Your task to perform on an android device: What's the weather today? Image 0: 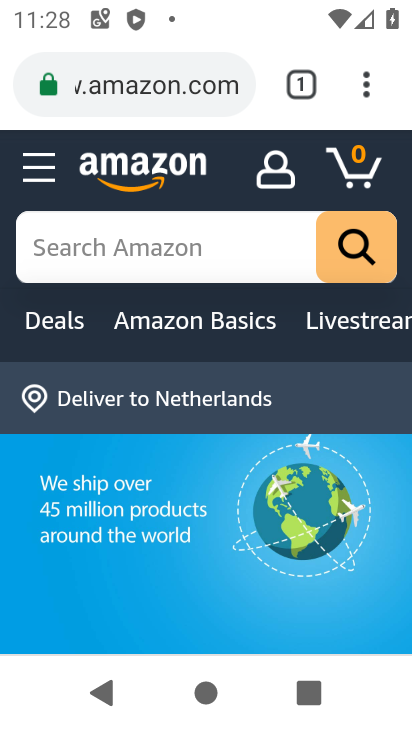
Step 0: press home button
Your task to perform on an android device: What's the weather today? Image 1: 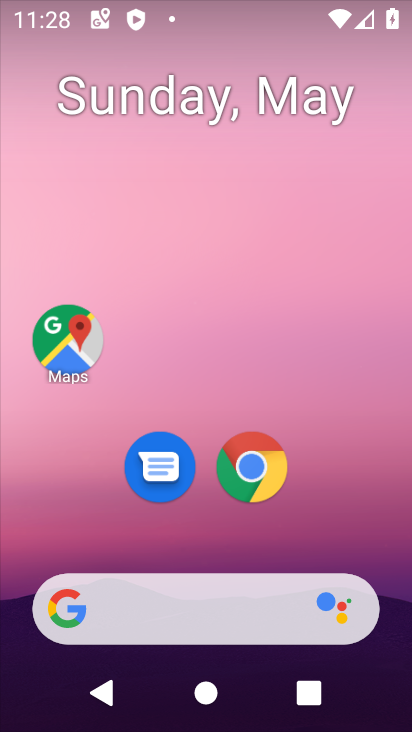
Step 1: click (140, 614)
Your task to perform on an android device: What's the weather today? Image 2: 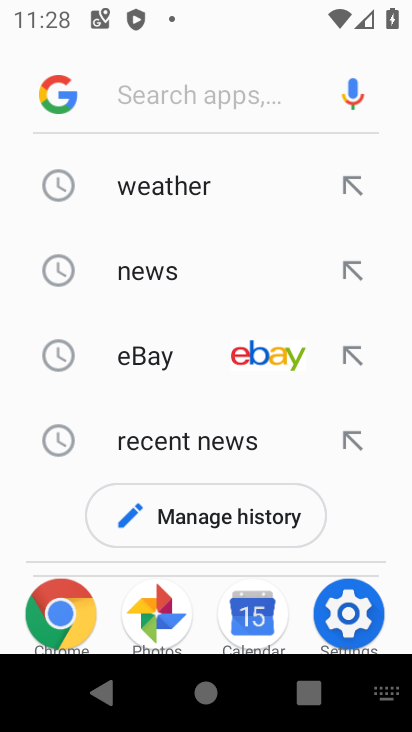
Step 2: click (158, 191)
Your task to perform on an android device: What's the weather today? Image 3: 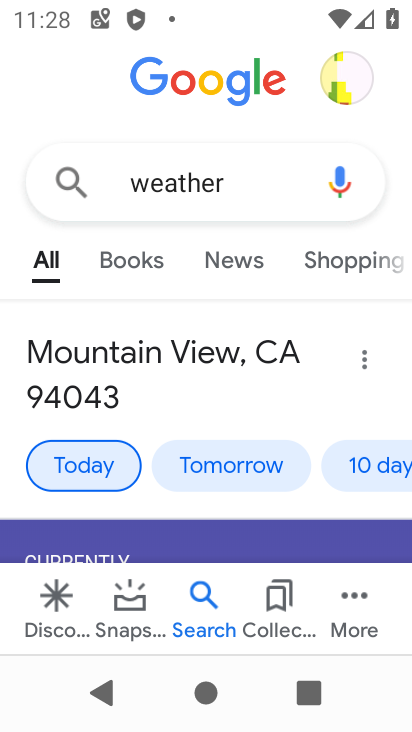
Step 3: task complete